Your task to perform on an android device: Go to Google Image 0: 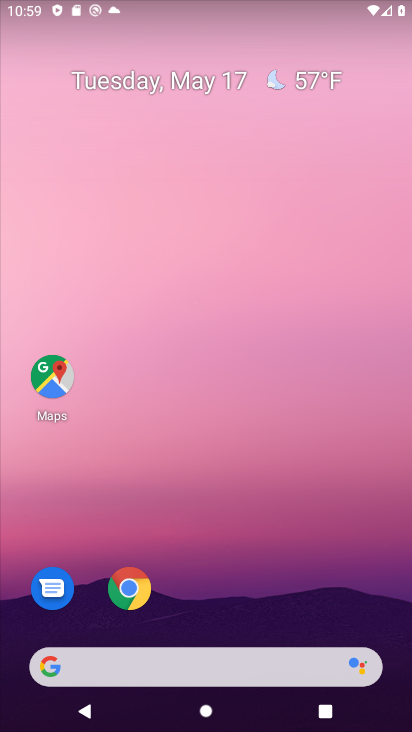
Step 0: drag from (280, 603) to (286, 101)
Your task to perform on an android device: Go to Google Image 1: 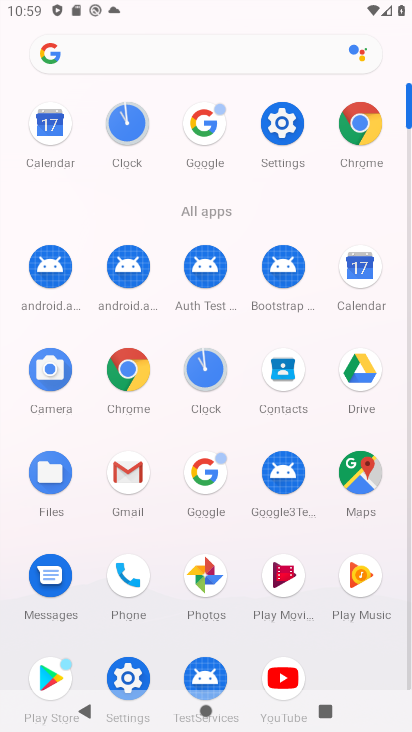
Step 1: click (207, 482)
Your task to perform on an android device: Go to Google Image 2: 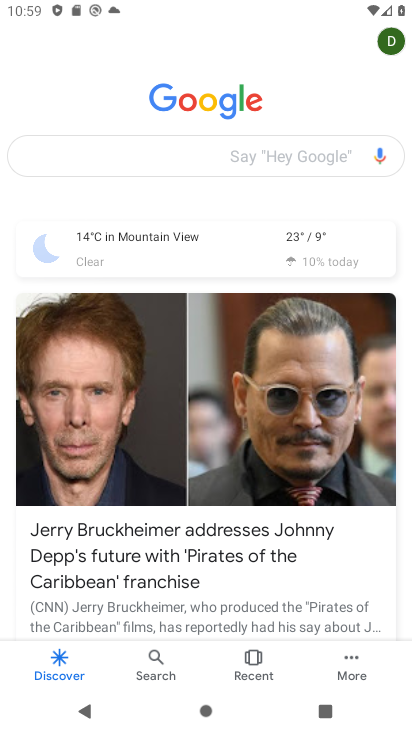
Step 2: task complete